Your task to perform on an android device: check out phone information Image 0: 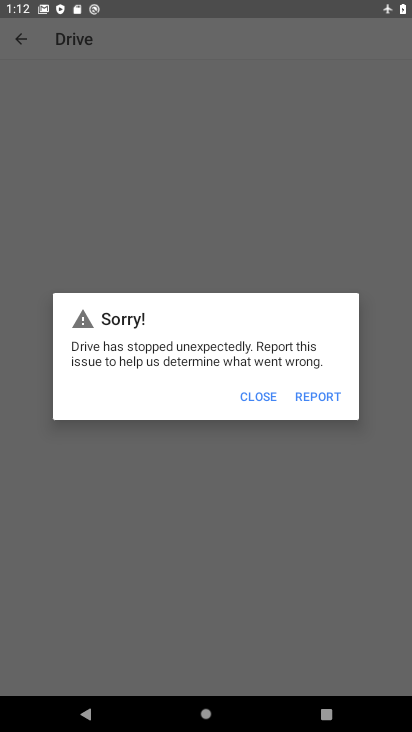
Step 0: drag from (230, 729) to (234, 287)
Your task to perform on an android device: check out phone information Image 1: 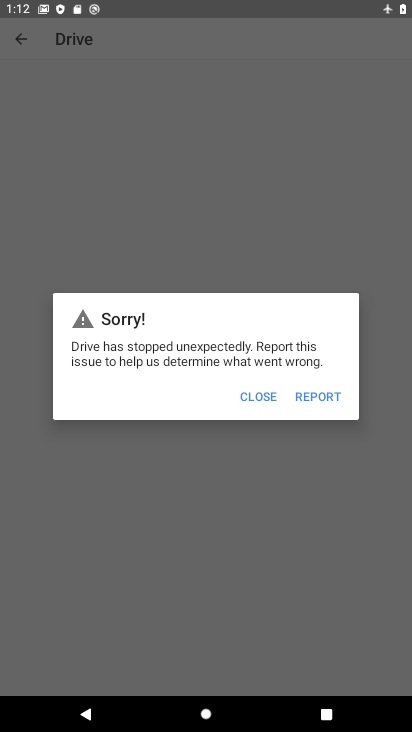
Step 1: press home button
Your task to perform on an android device: check out phone information Image 2: 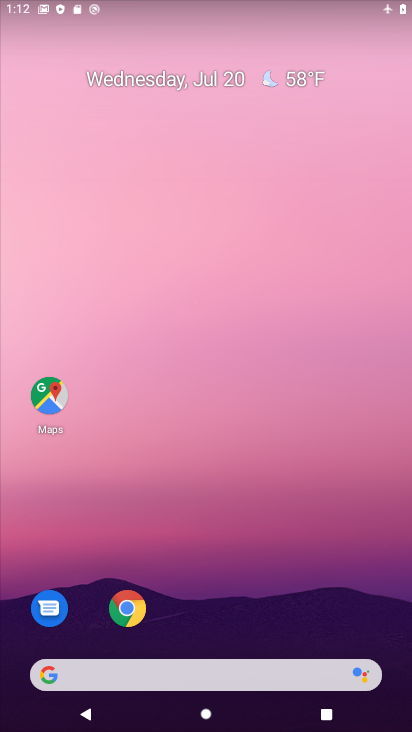
Step 2: drag from (235, 726) to (235, 77)
Your task to perform on an android device: check out phone information Image 3: 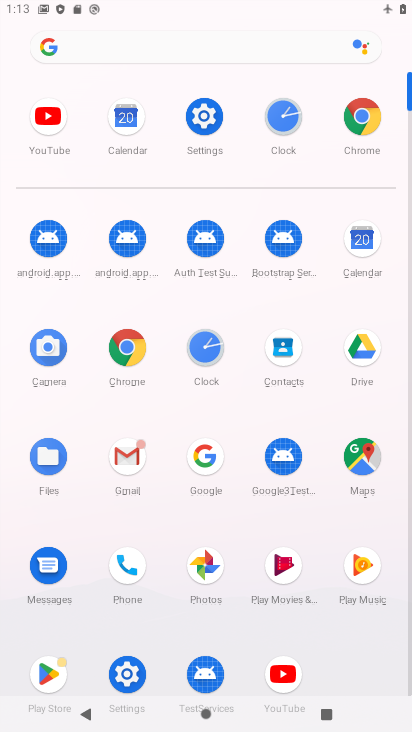
Step 3: click (207, 116)
Your task to perform on an android device: check out phone information Image 4: 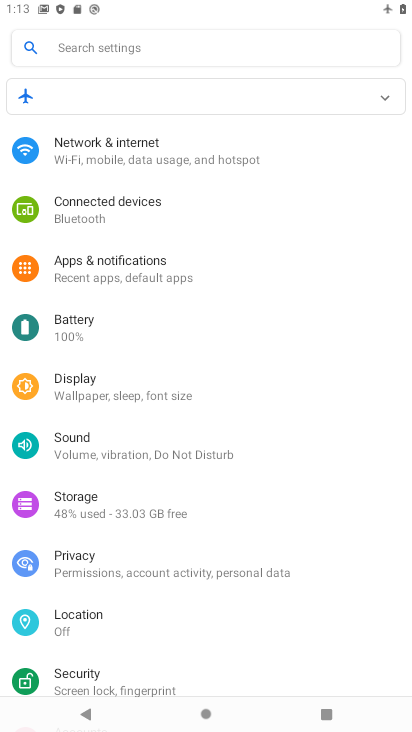
Step 4: drag from (230, 671) to (233, 341)
Your task to perform on an android device: check out phone information Image 5: 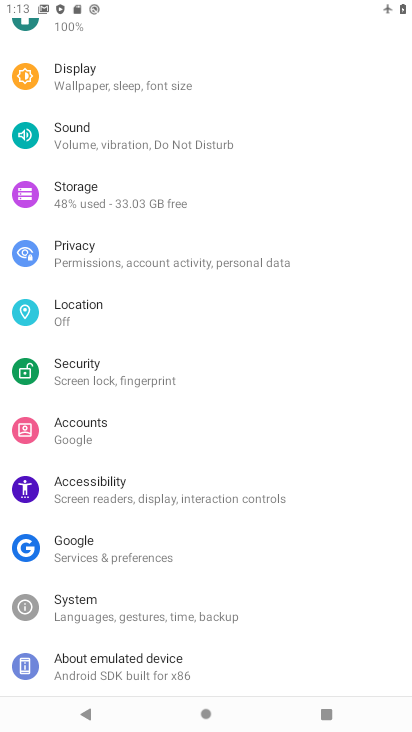
Step 5: drag from (144, 671) to (142, 423)
Your task to perform on an android device: check out phone information Image 6: 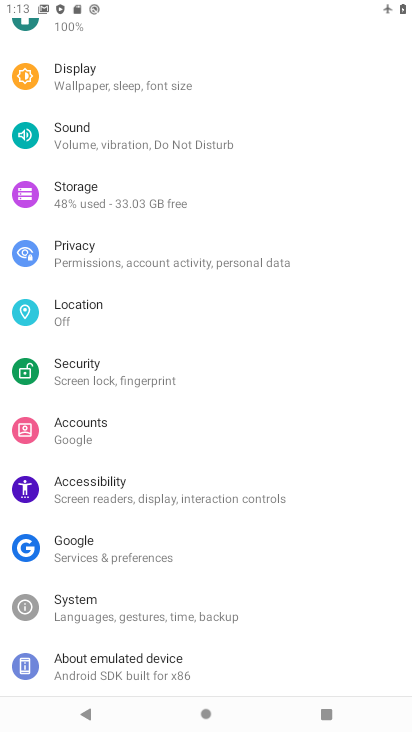
Step 6: click (131, 671)
Your task to perform on an android device: check out phone information Image 7: 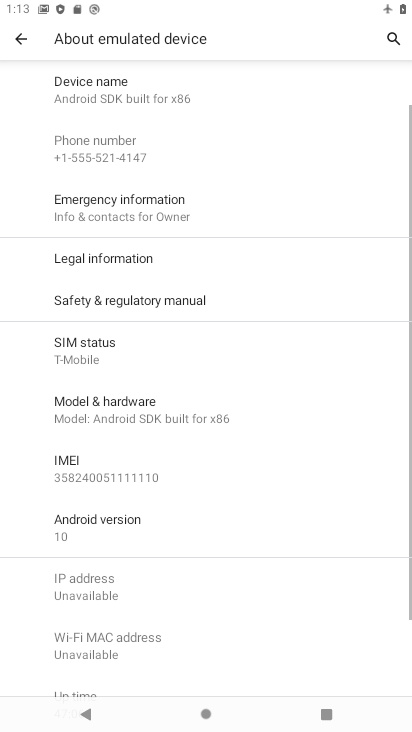
Step 7: task complete